Your task to perform on an android device: toggle javascript in the chrome app Image 0: 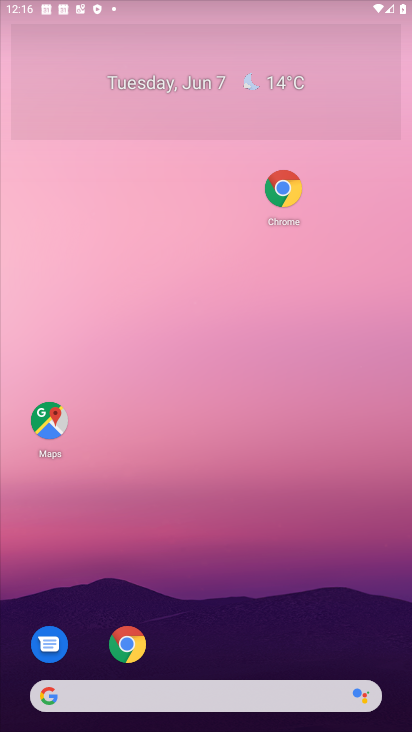
Step 0: drag from (258, 555) to (260, 190)
Your task to perform on an android device: toggle javascript in the chrome app Image 1: 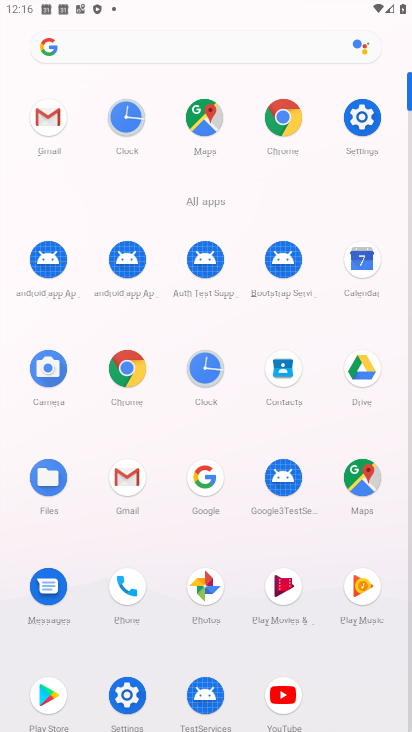
Step 1: click (369, 119)
Your task to perform on an android device: toggle javascript in the chrome app Image 2: 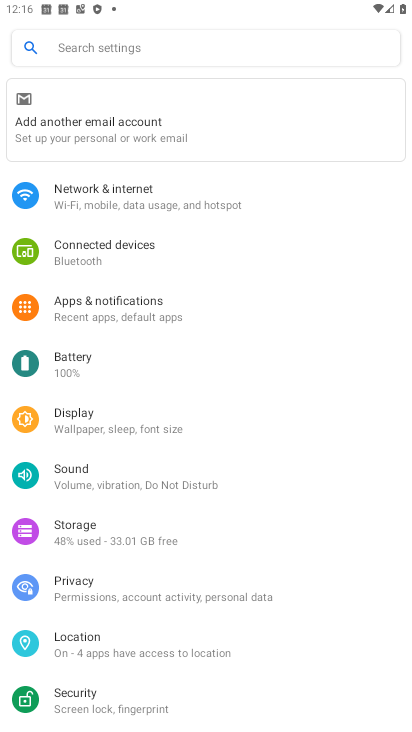
Step 2: press home button
Your task to perform on an android device: toggle javascript in the chrome app Image 3: 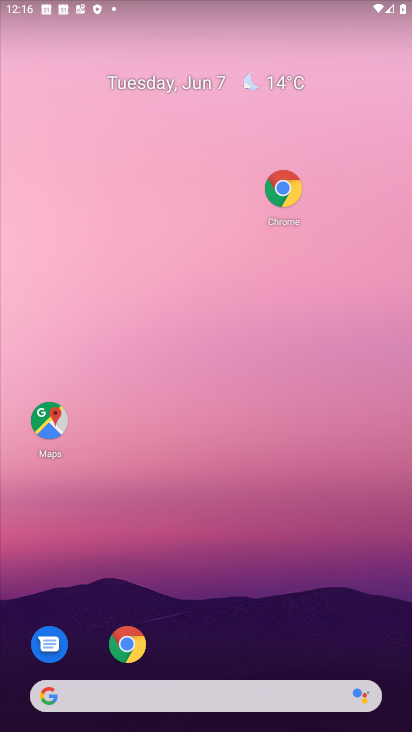
Step 3: click (286, 190)
Your task to perform on an android device: toggle javascript in the chrome app Image 4: 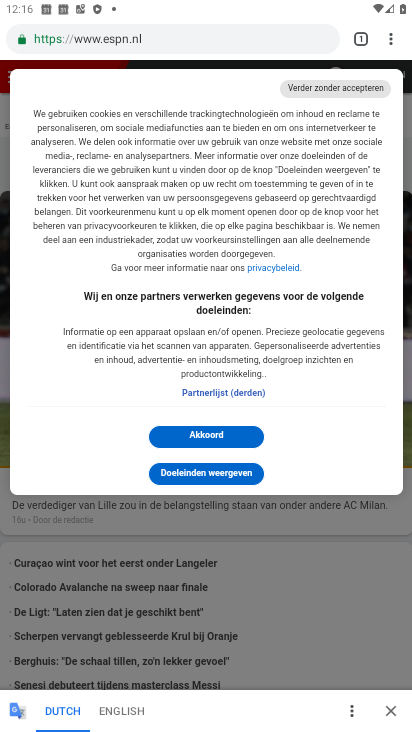
Step 4: click (396, 38)
Your task to perform on an android device: toggle javascript in the chrome app Image 5: 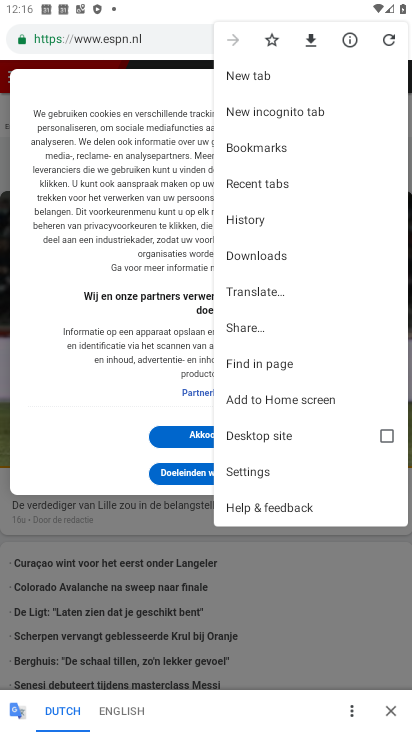
Step 5: click (265, 465)
Your task to perform on an android device: toggle javascript in the chrome app Image 6: 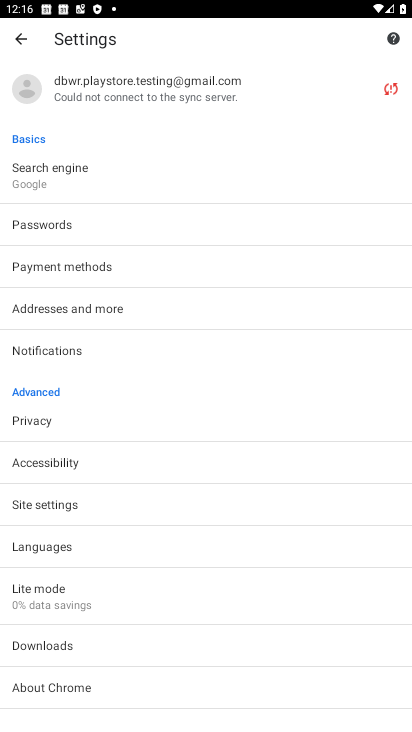
Step 6: click (76, 504)
Your task to perform on an android device: toggle javascript in the chrome app Image 7: 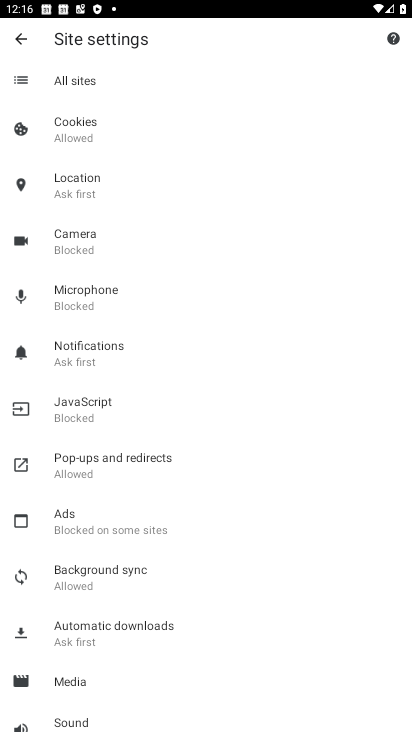
Step 7: click (92, 398)
Your task to perform on an android device: toggle javascript in the chrome app Image 8: 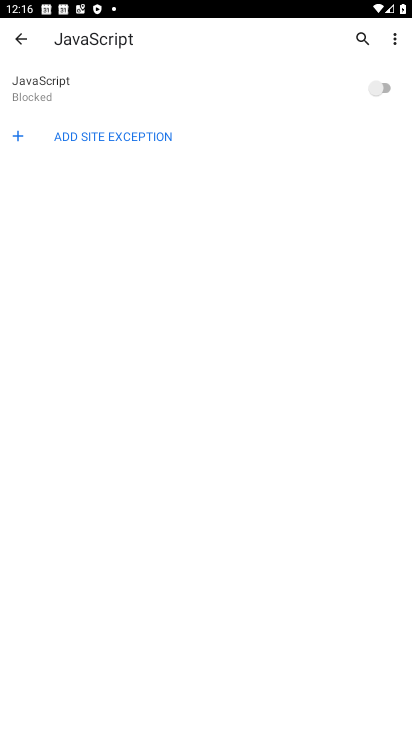
Step 8: click (380, 80)
Your task to perform on an android device: toggle javascript in the chrome app Image 9: 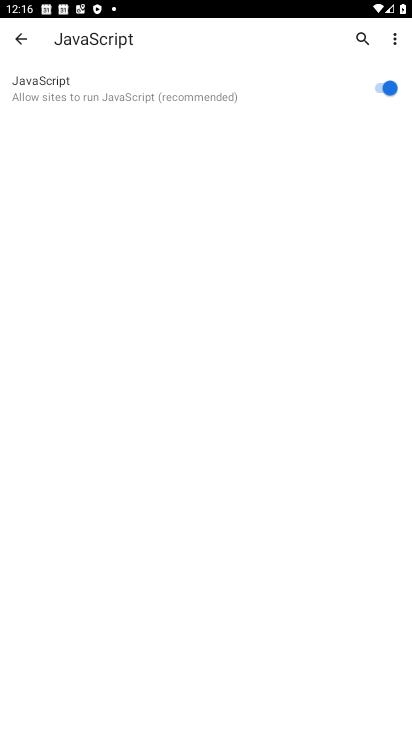
Step 9: task complete